Your task to perform on an android device: Open Youtube and go to "Your channel" Image 0: 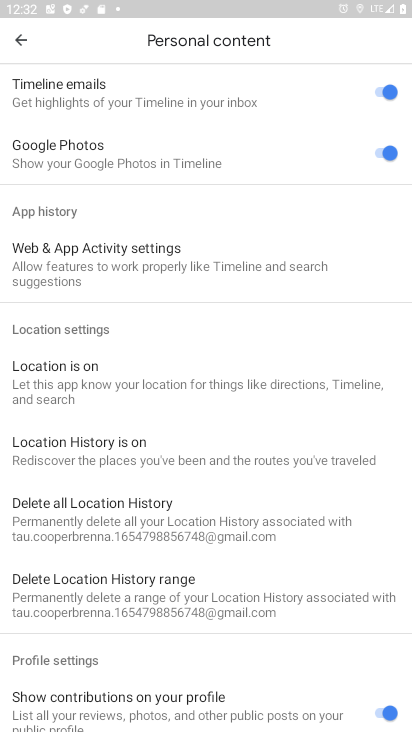
Step 0: press home button
Your task to perform on an android device: Open Youtube and go to "Your channel" Image 1: 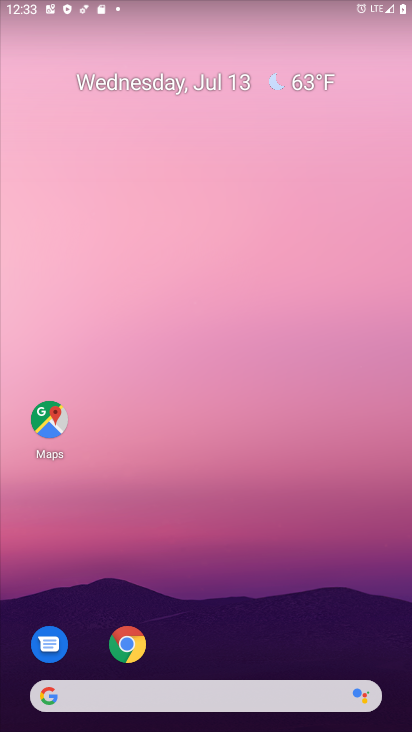
Step 1: drag from (219, 683) to (216, 203)
Your task to perform on an android device: Open Youtube and go to "Your channel" Image 2: 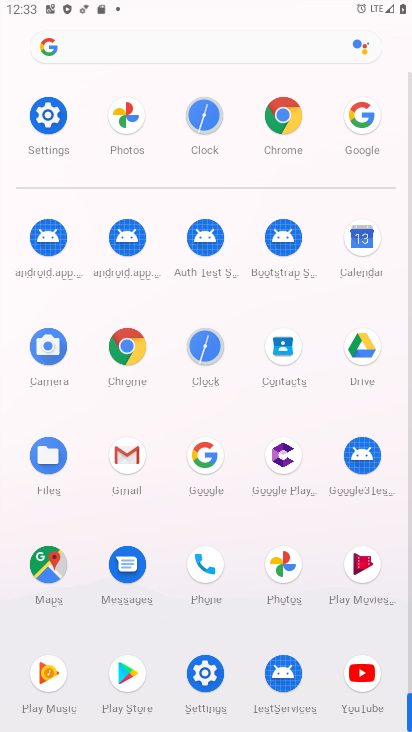
Step 2: click (361, 674)
Your task to perform on an android device: Open Youtube and go to "Your channel" Image 3: 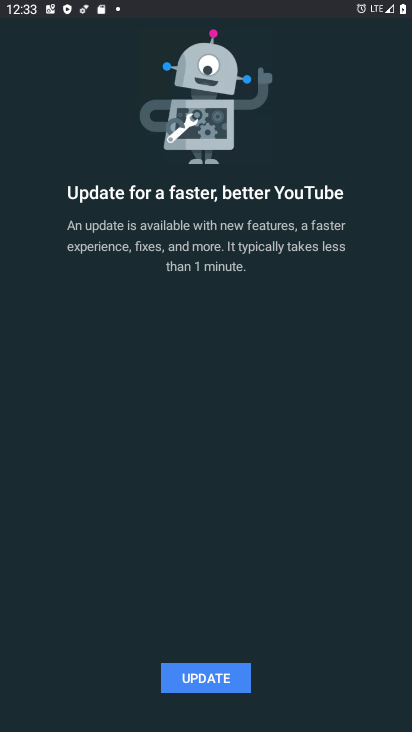
Step 3: click (213, 678)
Your task to perform on an android device: Open Youtube and go to "Your channel" Image 4: 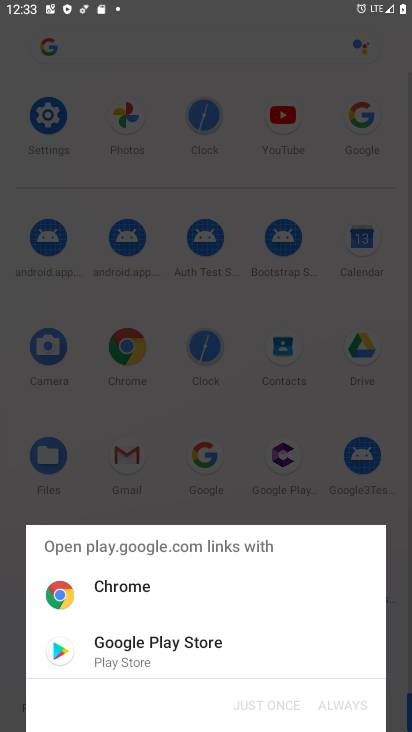
Step 4: click (166, 651)
Your task to perform on an android device: Open Youtube and go to "Your channel" Image 5: 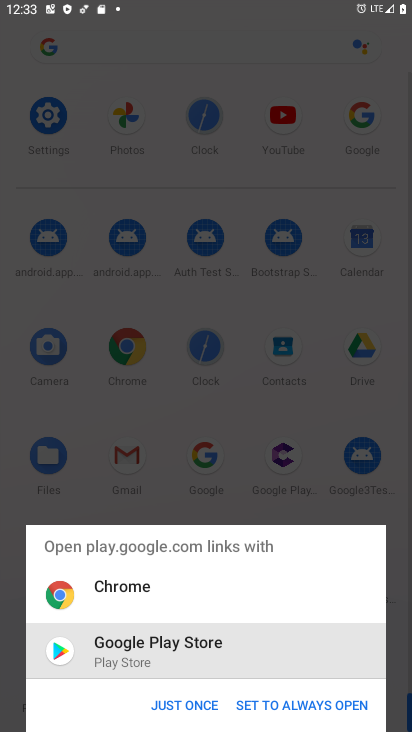
Step 5: click (172, 704)
Your task to perform on an android device: Open Youtube and go to "Your channel" Image 6: 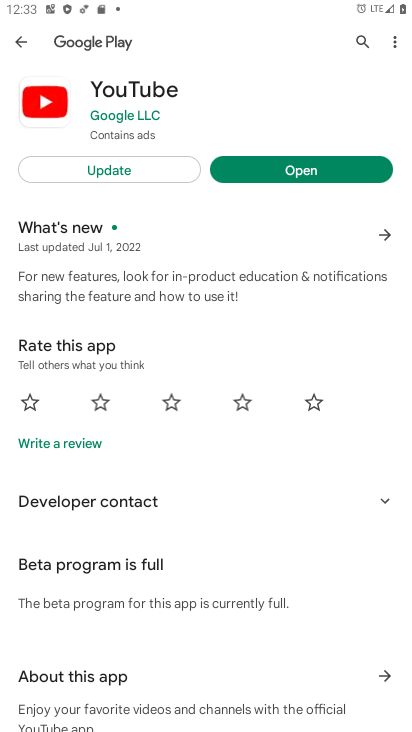
Step 6: click (119, 167)
Your task to perform on an android device: Open Youtube and go to "Your channel" Image 7: 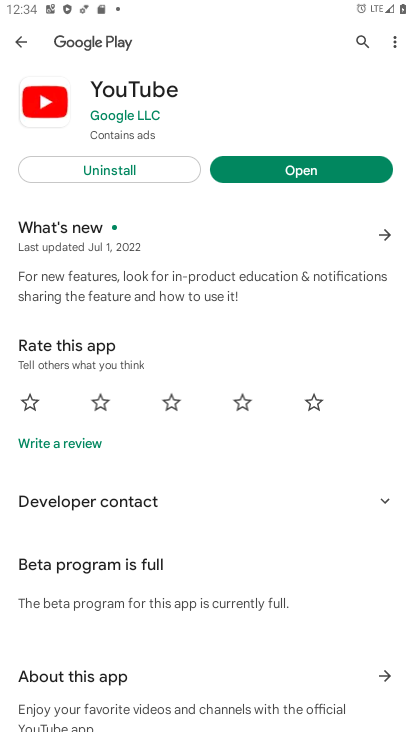
Step 7: click (316, 168)
Your task to perform on an android device: Open Youtube and go to "Your channel" Image 8: 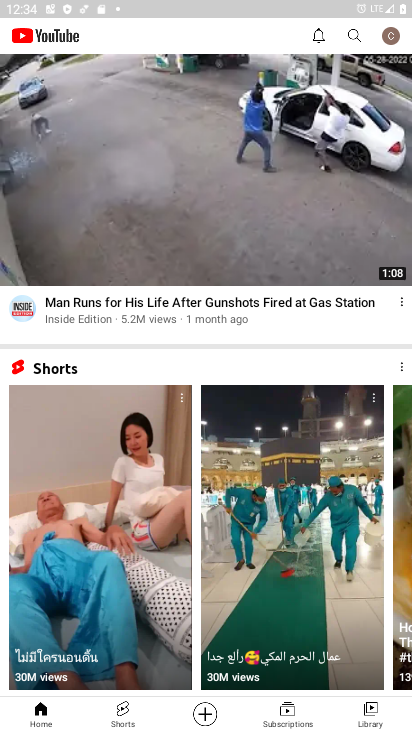
Step 8: click (392, 34)
Your task to perform on an android device: Open Youtube and go to "Your channel" Image 9: 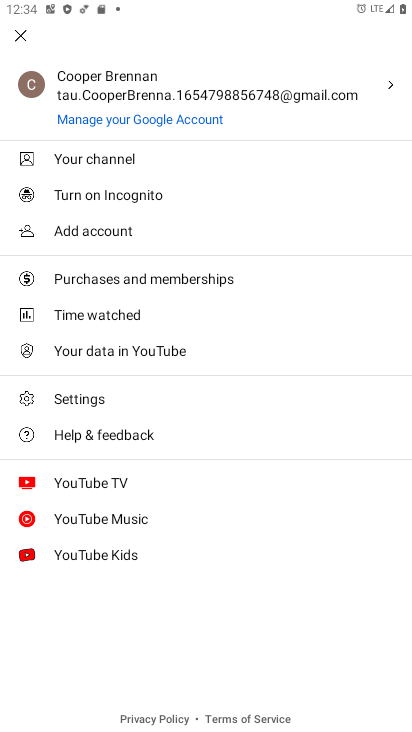
Step 9: click (110, 158)
Your task to perform on an android device: Open Youtube and go to "Your channel" Image 10: 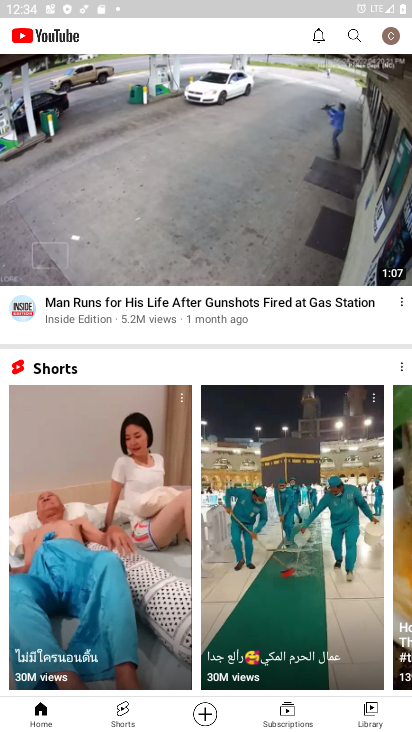
Step 10: task complete